Your task to perform on an android device: toggle wifi Image 0: 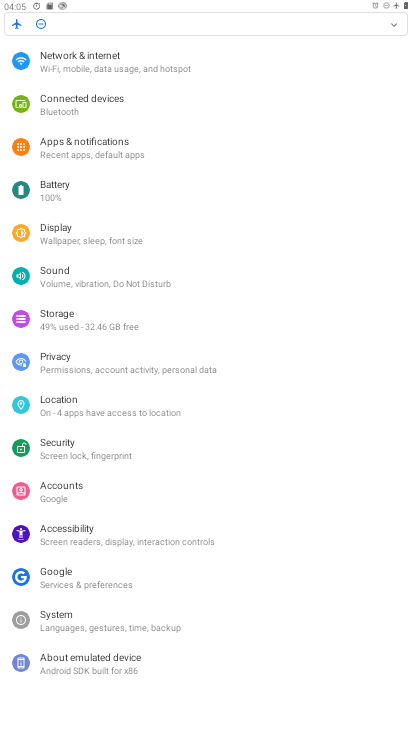
Step 0: click (155, 60)
Your task to perform on an android device: toggle wifi Image 1: 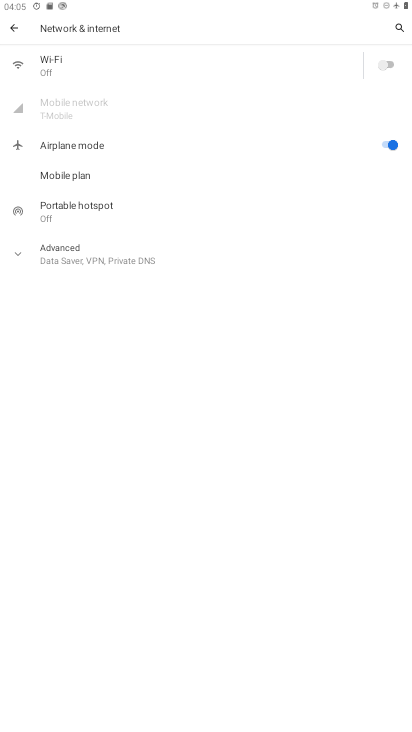
Step 1: click (384, 61)
Your task to perform on an android device: toggle wifi Image 2: 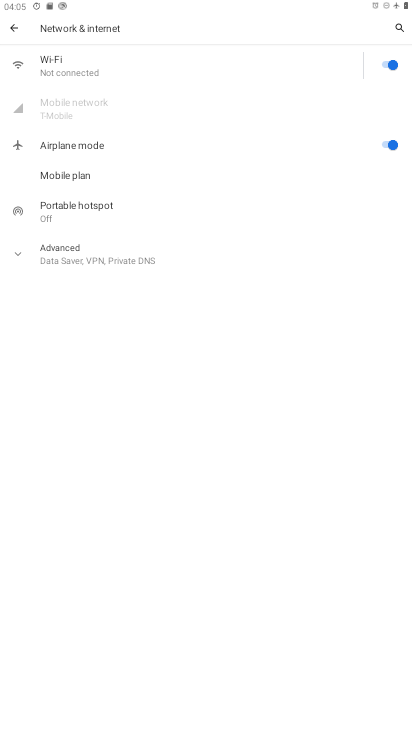
Step 2: task complete